Your task to perform on an android device: Do I have any events this weekend? Image 0: 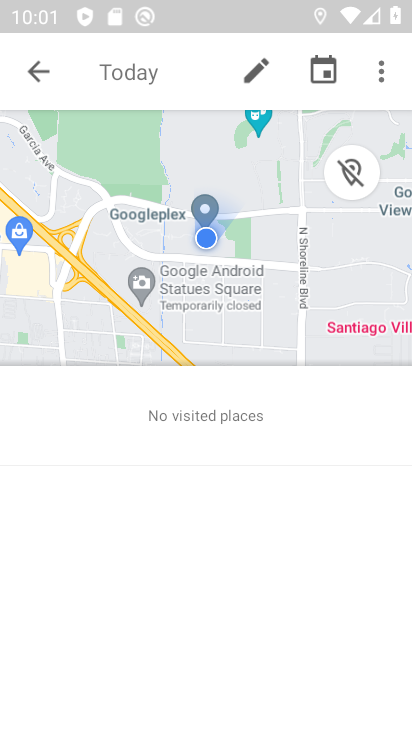
Step 0: press home button
Your task to perform on an android device: Do I have any events this weekend? Image 1: 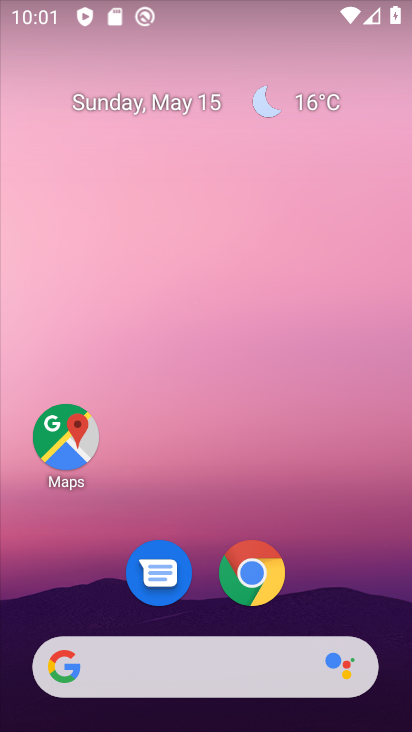
Step 1: drag from (322, 578) to (273, 263)
Your task to perform on an android device: Do I have any events this weekend? Image 2: 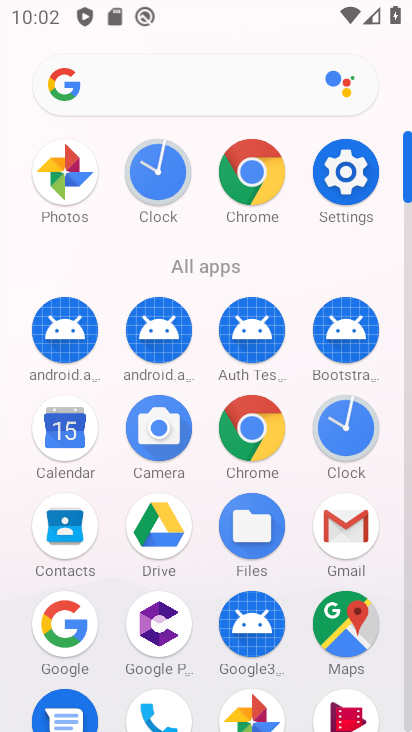
Step 2: drag from (205, 537) to (196, 225)
Your task to perform on an android device: Do I have any events this weekend? Image 3: 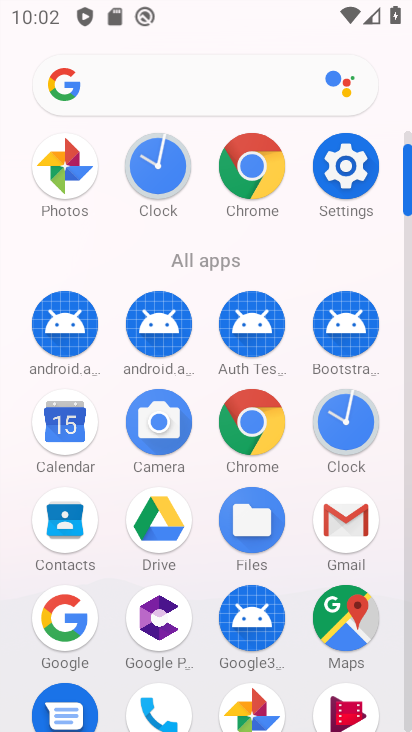
Step 3: click (73, 450)
Your task to perform on an android device: Do I have any events this weekend? Image 4: 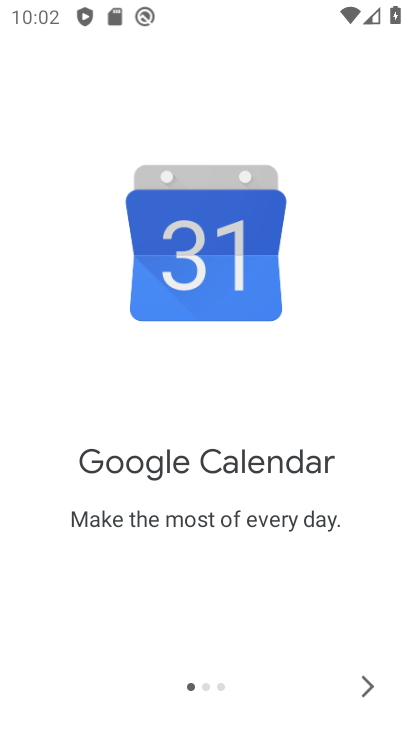
Step 4: click (359, 689)
Your task to perform on an android device: Do I have any events this weekend? Image 5: 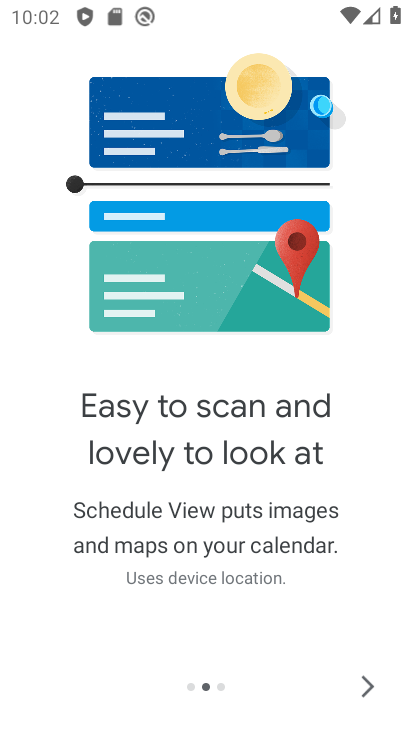
Step 5: click (363, 693)
Your task to perform on an android device: Do I have any events this weekend? Image 6: 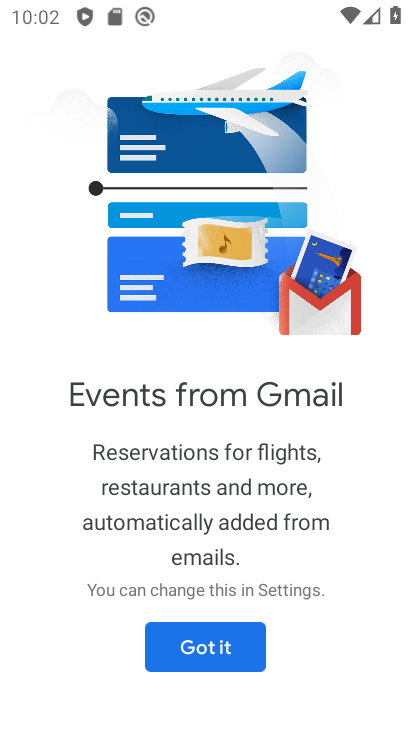
Step 6: click (197, 636)
Your task to perform on an android device: Do I have any events this weekend? Image 7: 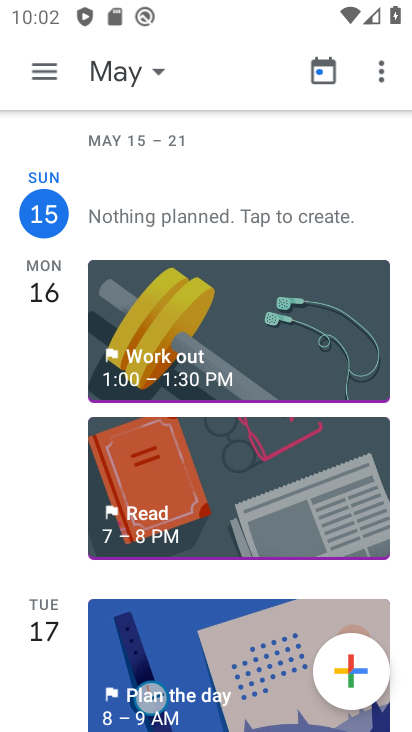
Step 7: click (51, 69)
Your task to perform on an android device: Do I have any events this weekend? Image 8: 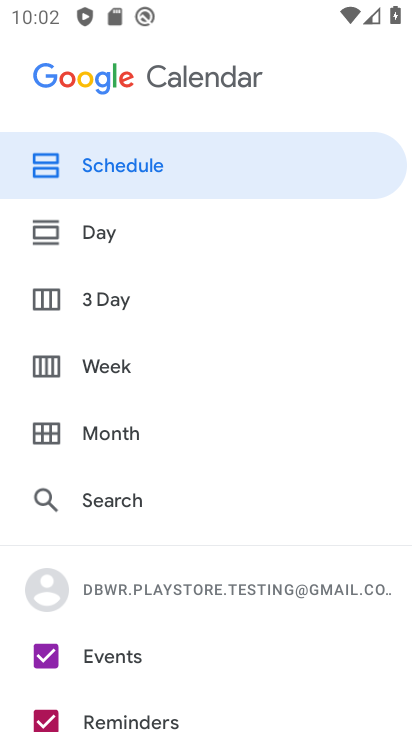
Step 8: click (95, 369)
Your task to perform on an android device: Do I have any events this weekend? Image 9: 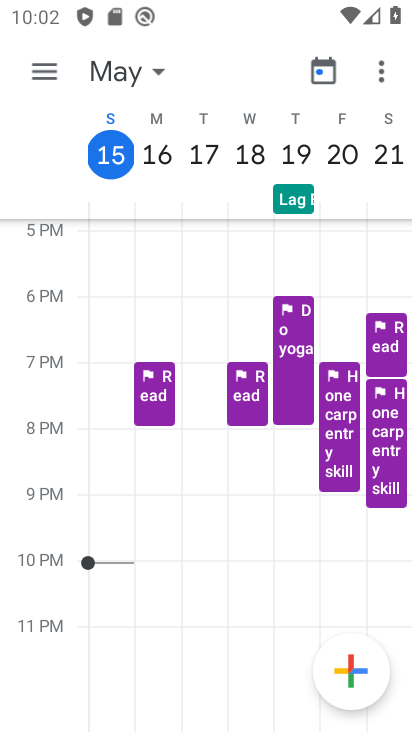
Step 9: task complete